Your task to perform on an android device: Search for a new grill on Home Depot Image 0: 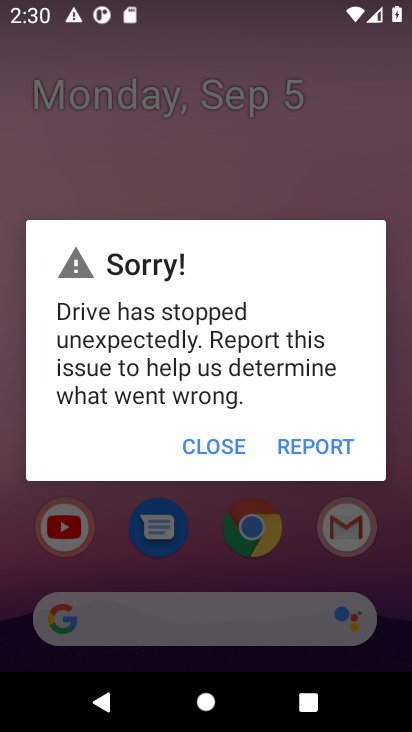
Step 0: click (217, 434)
Your task to perform on an android device: Search for a new grill on Home Depot Image 1: 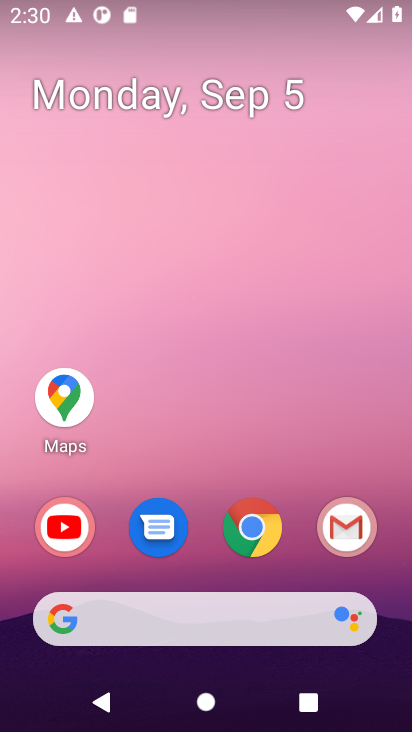
Step 1: click (248, 520)
Your task to perform on an android device: Search for a new grill on Home Depot Image 2: 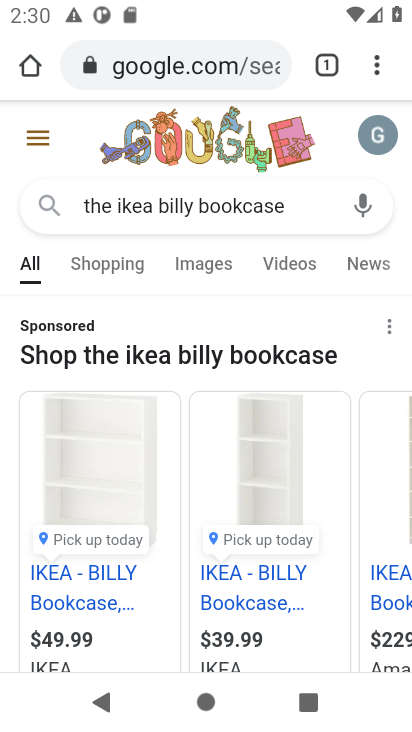
Step 2: click (197, 53)
Your task to perform on an android device: Search for a new grill on Home Depot Image 3: 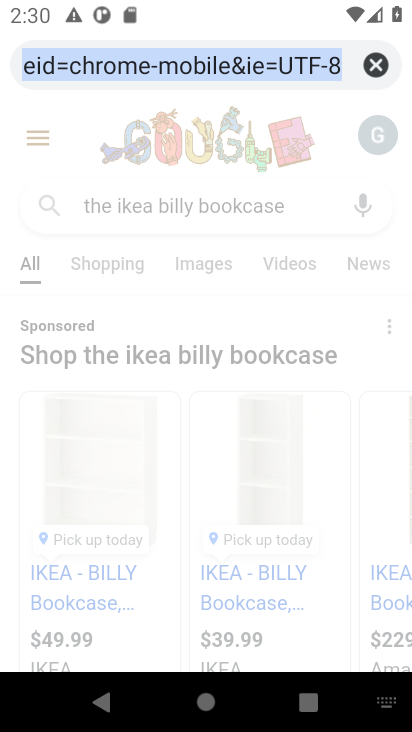
Step 3: type "Home depot"
Your task to perform on an android device: Search for a new grill on Home Depot Image 4: 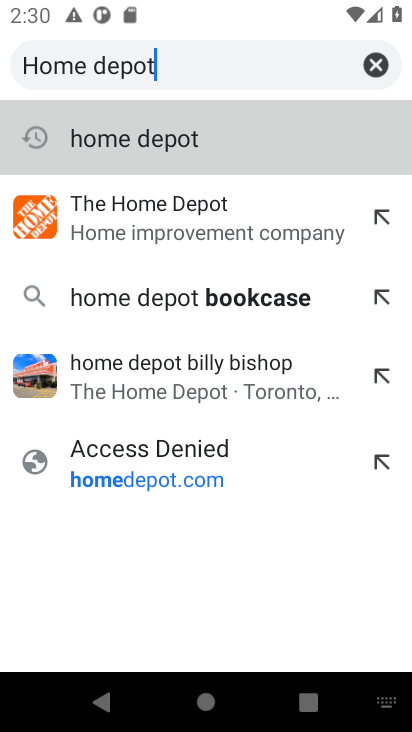
Step 4: click (179, 139)
Your task to perform on an android device: Search for a new grill on Home Depot Image 5: 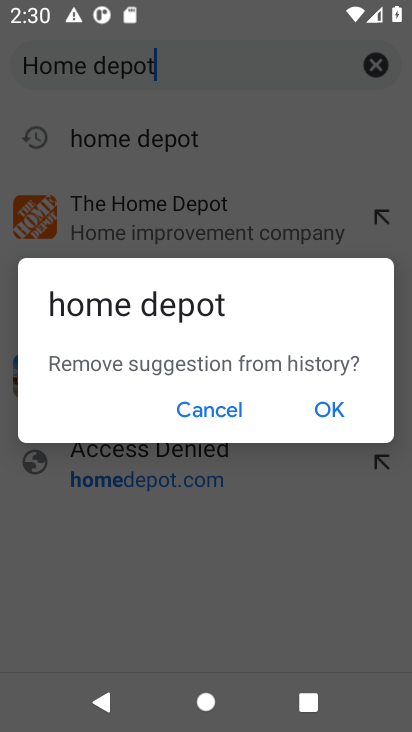
Step 5: click (209, 417)
Your task to perform on an android device: Search for a new grill on Home Depot Image 6: 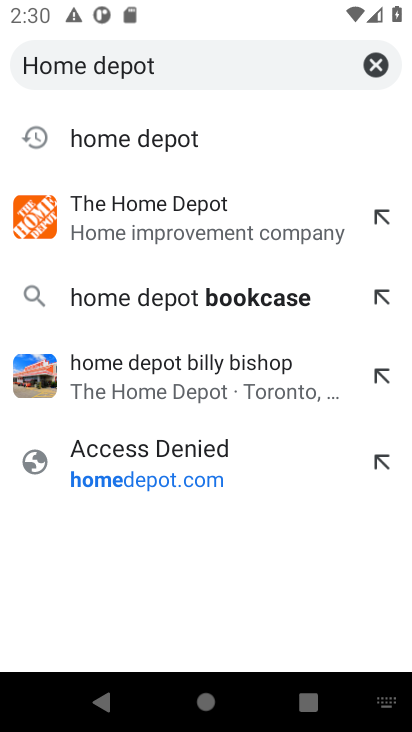
Step 6: click (163, 144)
Your task to perform on an android device: Search for a new grill on Home Depot Image 7: 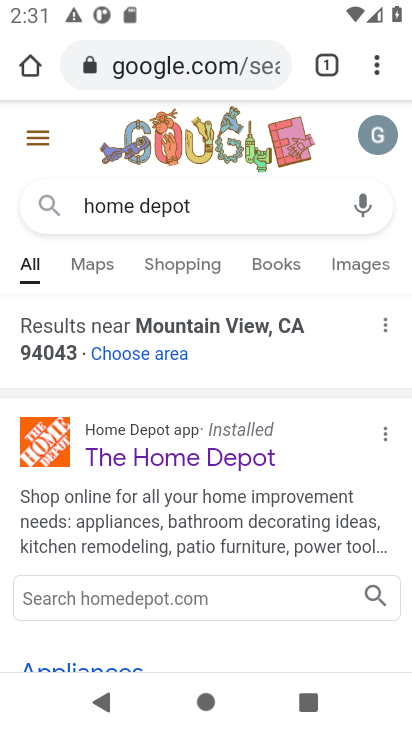
Step 7: click (188, 488)
Your task to perform on an android device: Search for a new grill on Home Depot Image 8: 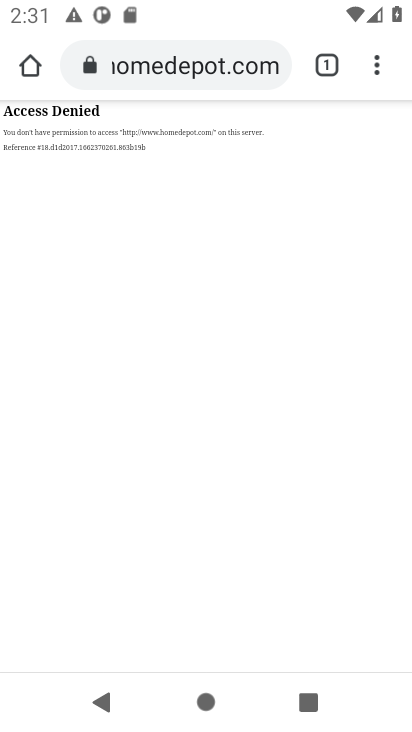
Step 8: task complete